Your task to perform on an android device: set default search engine in the chrome app Image 0: 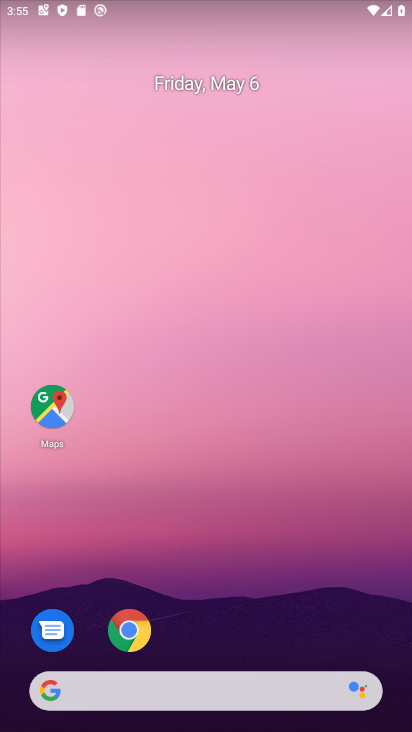
Step 0: click (144, 624)
Your task to perform on an android device: set default search engine in the chrome app Image 1: 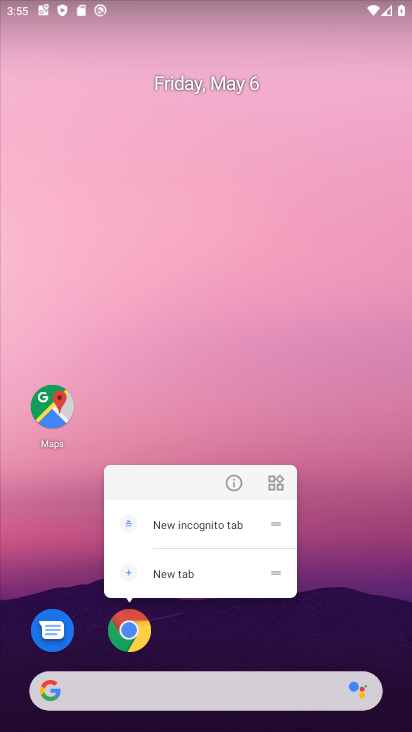
Step 1: click (139, 622)
Your task to perform on an android device: set default search engine in the chrome app Image 2: 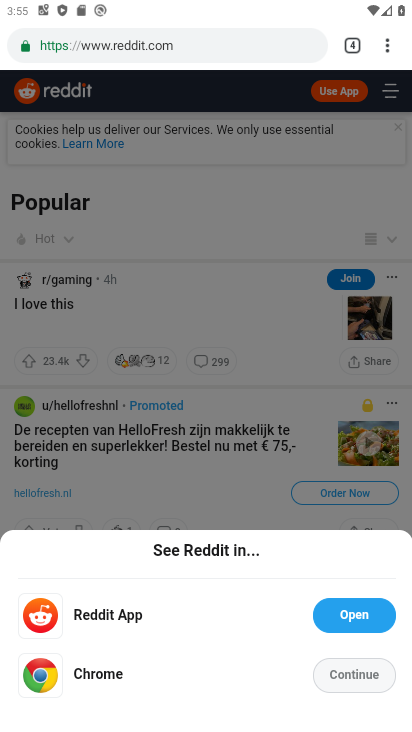
Step 2: click (378, 43)
Your task to perform on an android device: set default search engine in the chrome app Image 3: 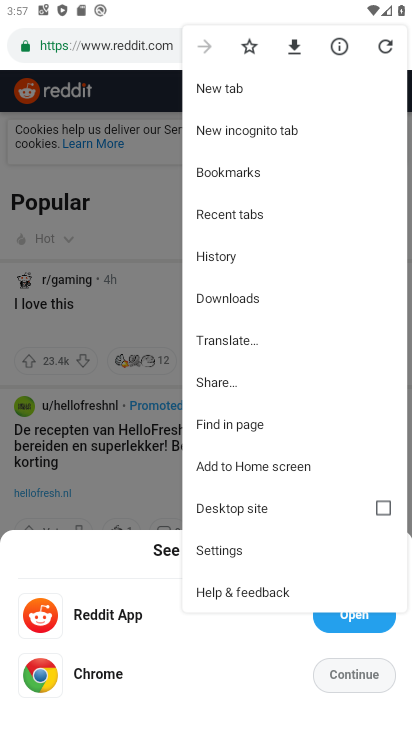
Step 3: click (227, 544)
Your task to perform on an android device: set default search engine in the chrome app Image 4: 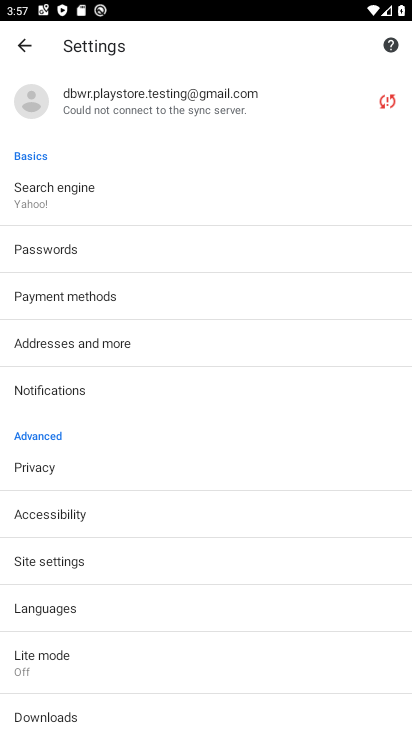
Step 4: click (54, 209)
Your task to perform on an android device: set default search engine in the chrome app Image 5: 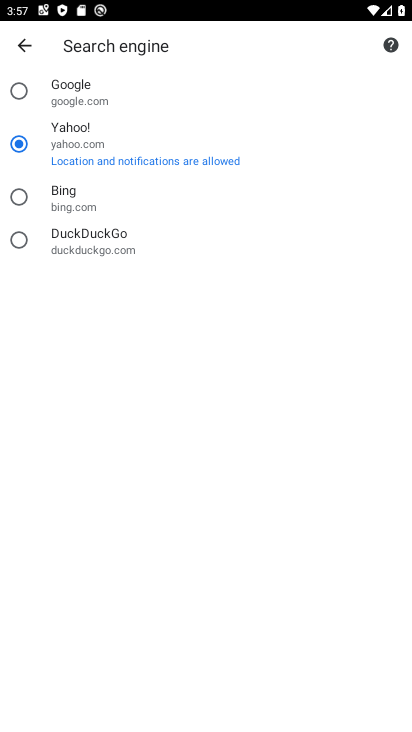
Step 5: click (58, 97)
Your task to perform on an android device: set default search engine in the chrome app Image 6: 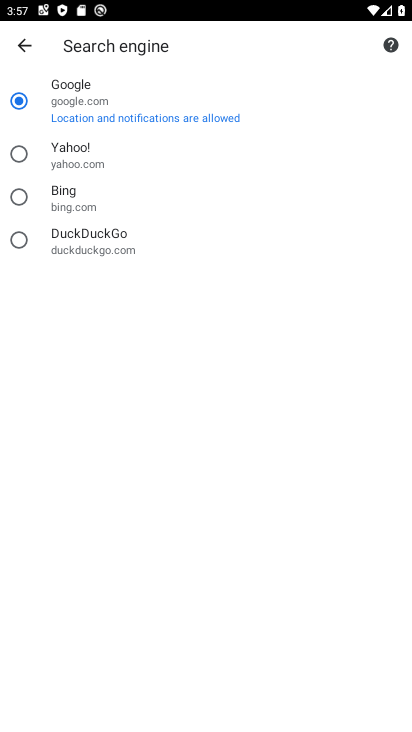
Step 6: task complete